Your task to perform on an android device: turn notification dots off Image 0: 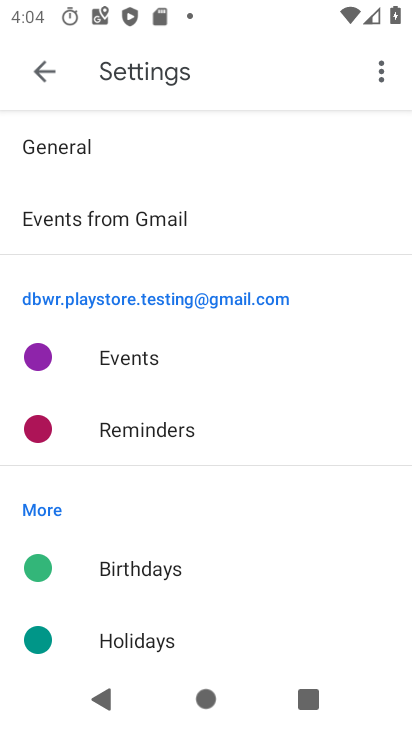
Step 0: press back button
Your task to perform on an android device: turn notification dots off Image 1: 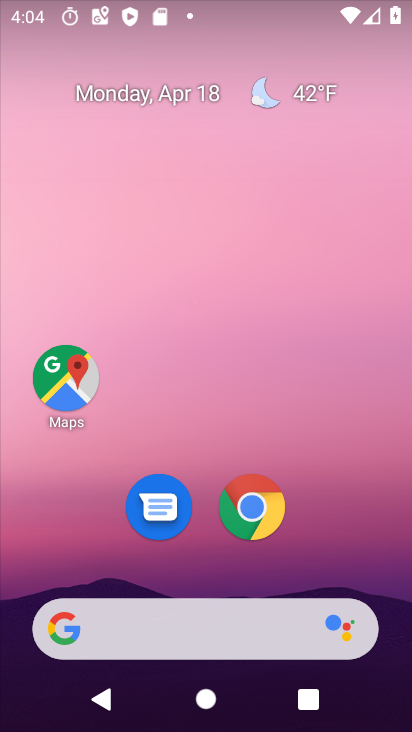
Step 1: drag from (331, 557) to (298, 57)
Your task to perform on an android device: turn notification dots off Image 2: 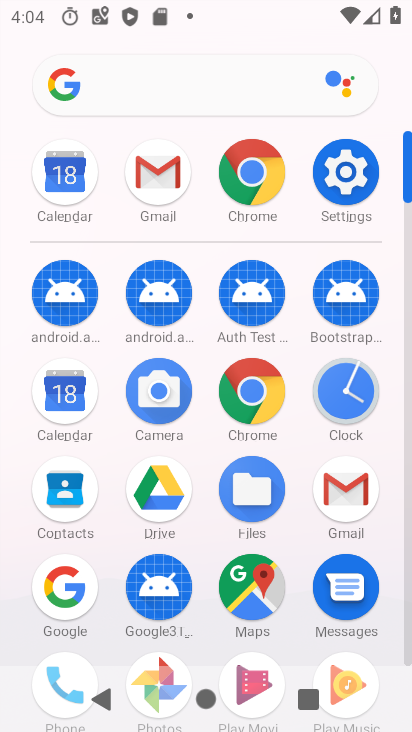
Step 2: click (336, 162)
Your task to perform on an android device: turn notification dots off Image 3: 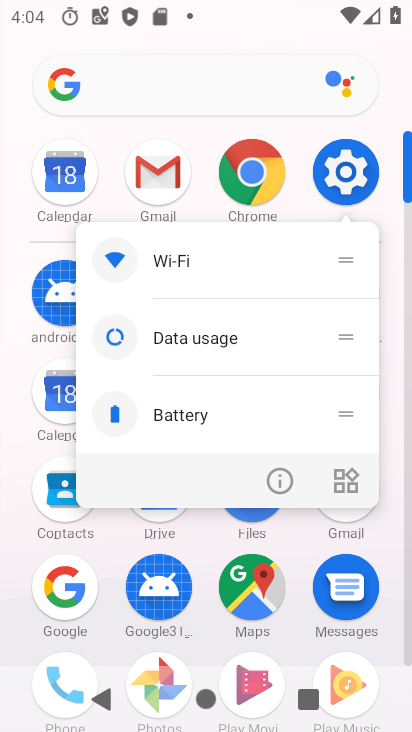
Step 3: click (336, 162)
Your task to perform on an android device: turn notification dots off Image 4: 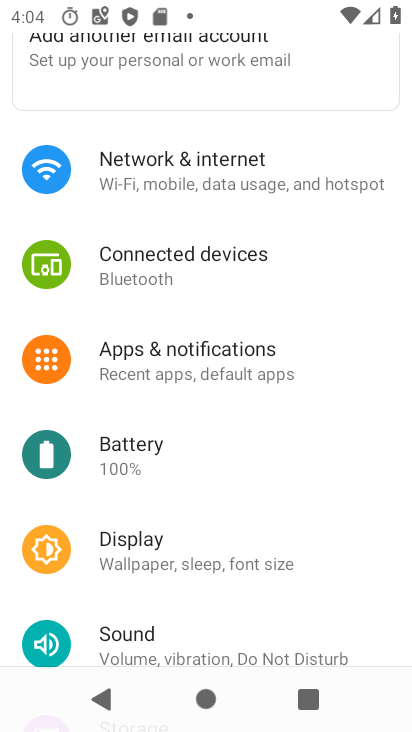
Step 4: click (153, 350)
Your task to perform on an android device: turn notification dots off Image 5: 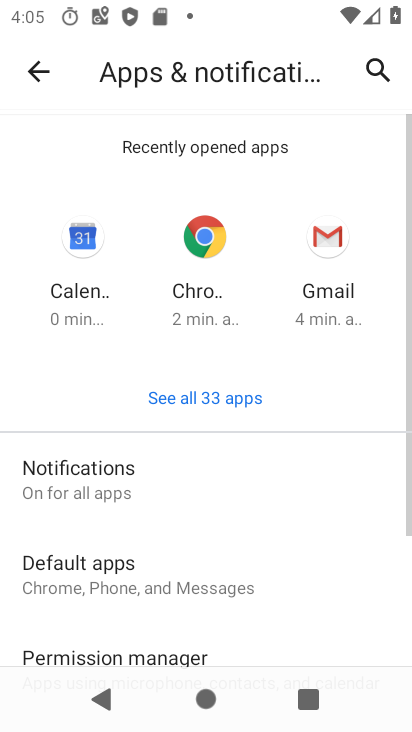
Step 5: click (129, 467)
Your task to perform on an android device: turn notification dots off Image 6: 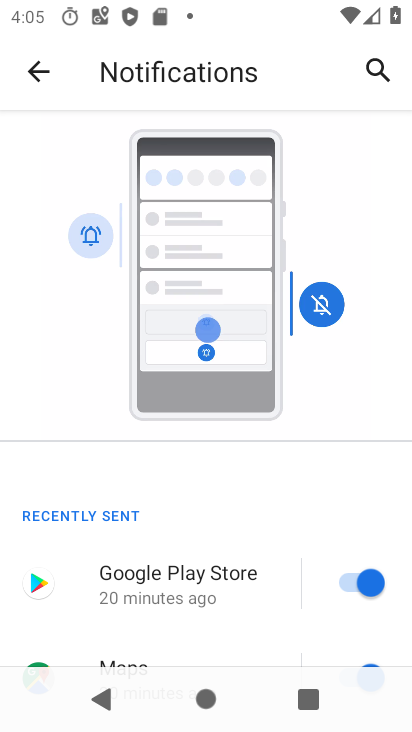
Step 6: drag from (241, 635) to (258, 335)
Your task to perform on an android device: turn notification dots off Image 7: 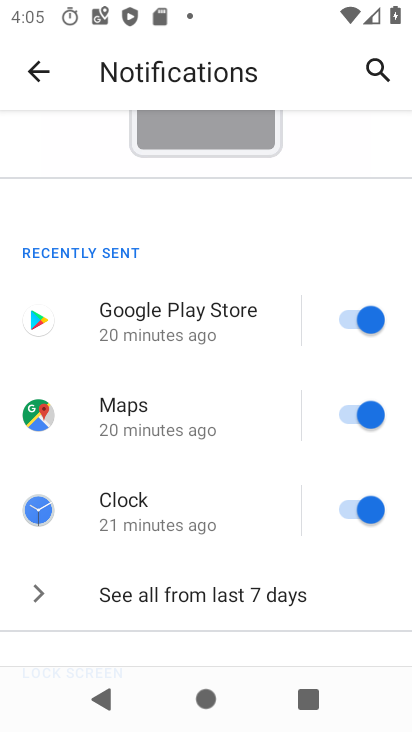
Step 7: drag from (228, 614) to (231, 473)
Your task to perform on an android device: turn notification dots off Image 8: 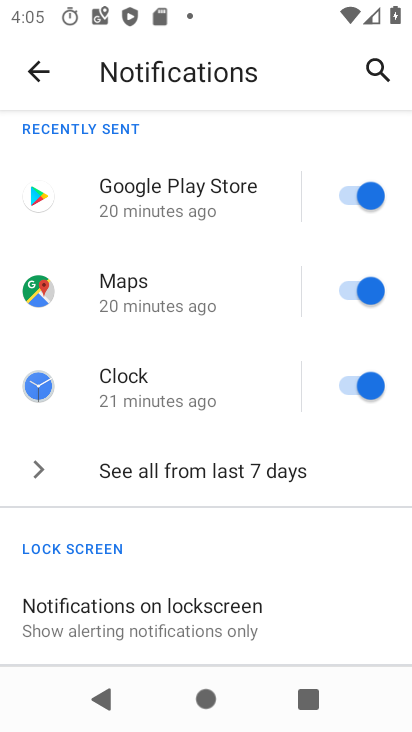
Step 8: drag from (166, 631) to (178, 444)
Your task to perform on an android device: turn notification dots off Image 9: 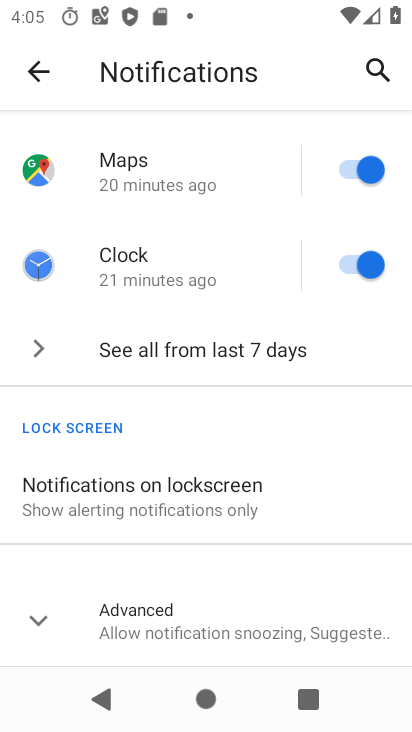
Step 9: click (204, 618)
Your task to perform on an android device: turn notification dots off Image 10: 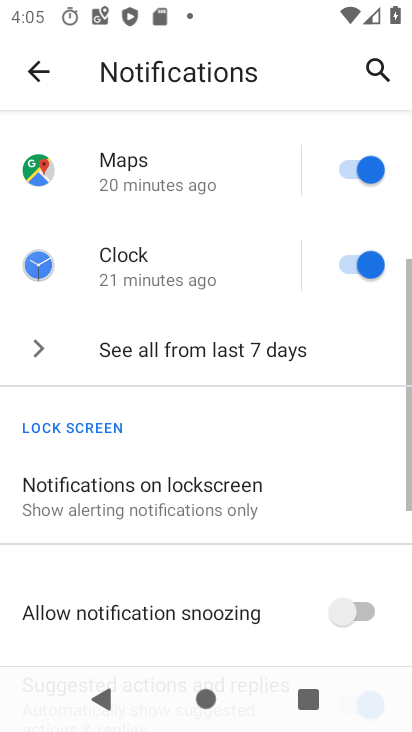
Step 10: drag from (205, 618) to (216, 473)
Your task to perform on an android device: turn notification dots off Image 11: 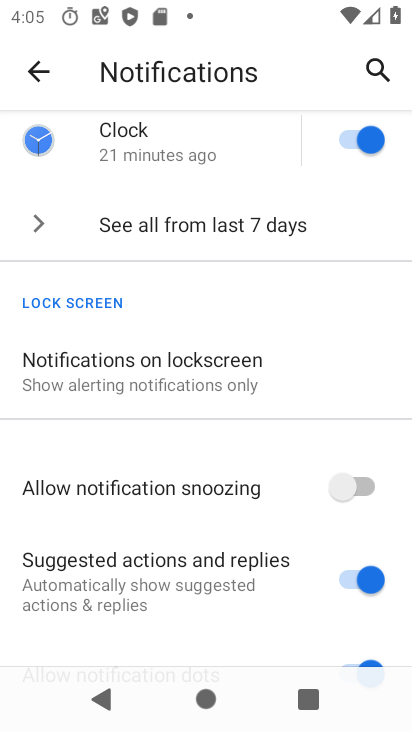
Step 11: drag from (166, 627) to (229, 384)
Your task to perform on an android device: turn notification dots off Image 12: 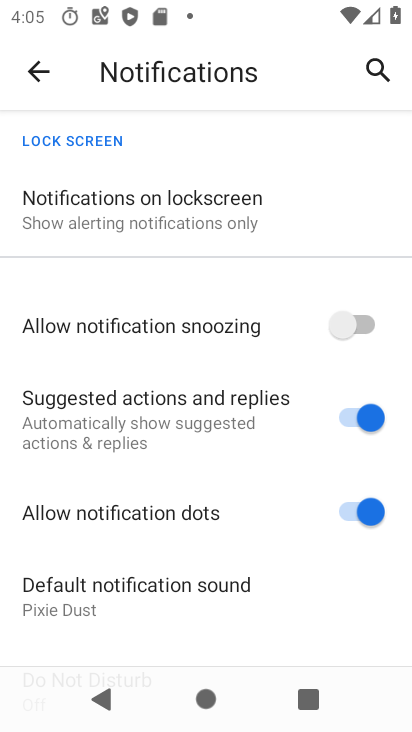
Step 12: click (340, 507)
Your task to perform on an android device: turn notification dots off Image 13: 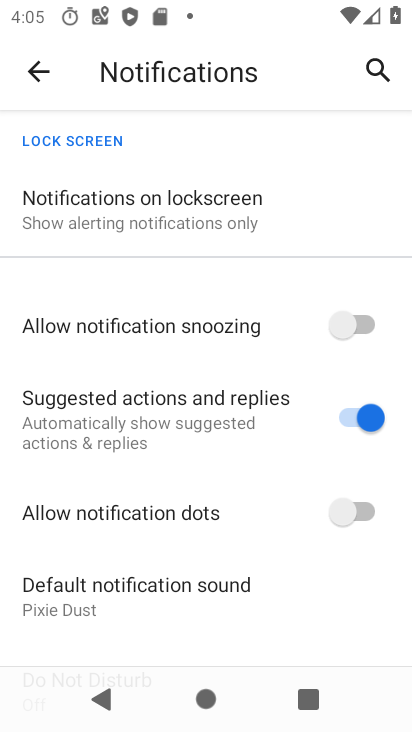
Step 13: task complete